Your task to perform on an android device: Open Reddit.com Image 0: 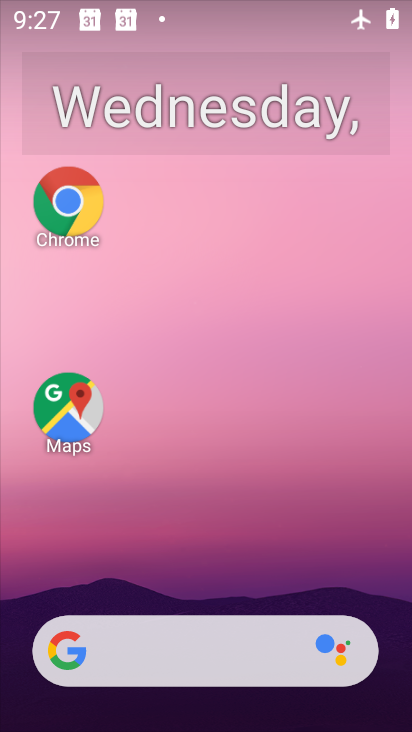
Step 0: drag from (182, 608) to (150, 291)
Your task to perform on an android device: Open Reddit.com Image 1: 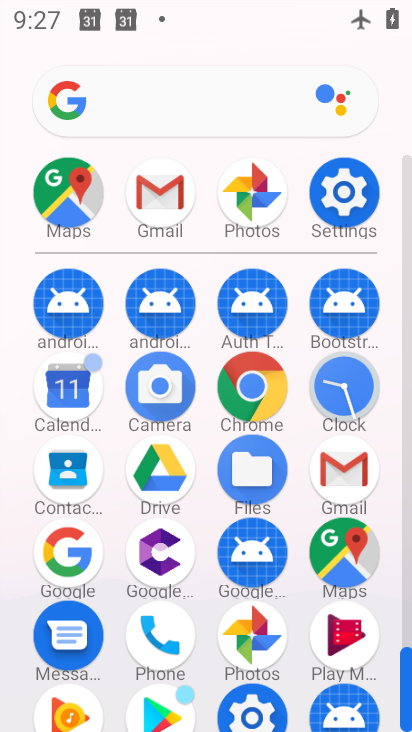
Step 1: click (241, 381)
Your task to perform on an android device: Open Reddit.com Image 2: 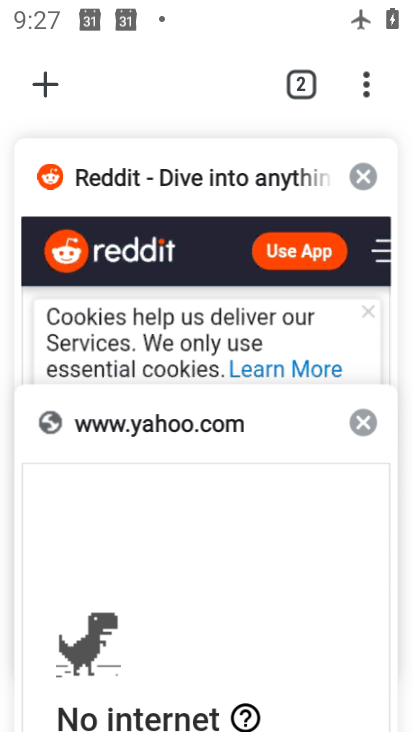
Step 2: click (225, 328)
Your task to perform on an android device: Open Reddit.com Image 3: 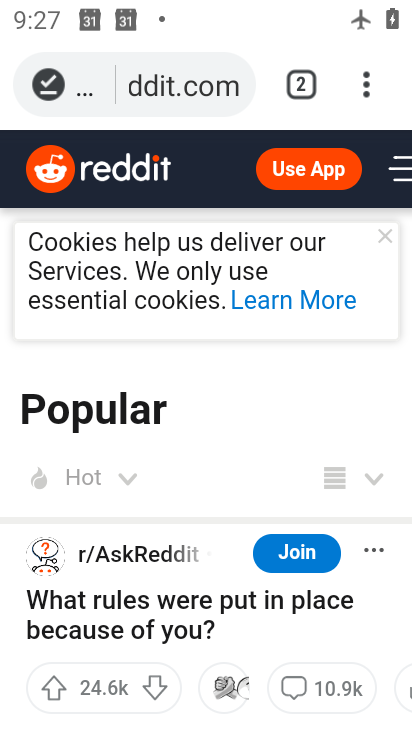
Step 3: task complete